Your task to perform on an android device: Search for Mexican restaurants on Maps Image 0: 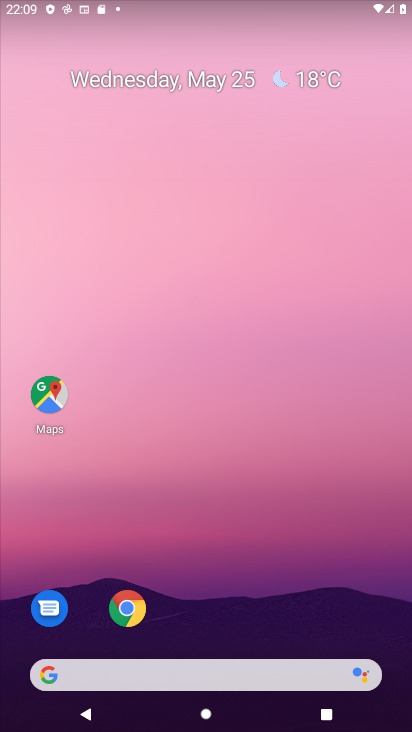
Step 0: click (54, 387)
Your task to perform on an android device: Search for Mexican restaurants on Maps Image 1: 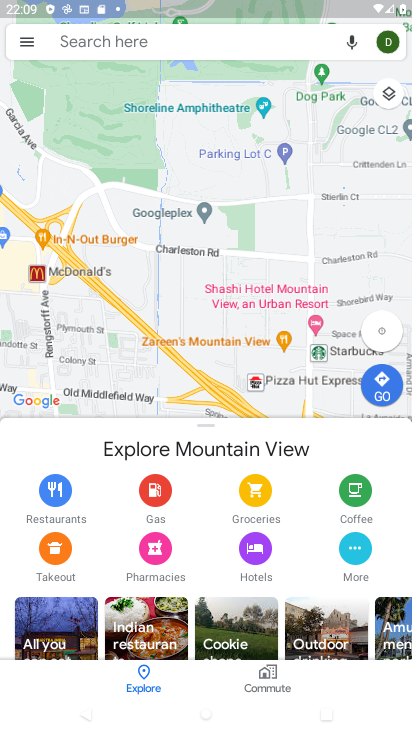
Step 1: click (132, 41)
Your task to perform on an android device: Search for Mexican restaurants on Maps Image 2: 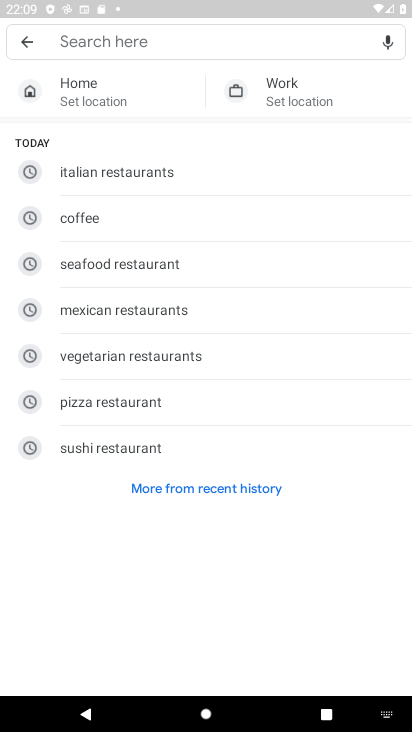
Step 2: click (156, 315)
Your task to perform on an android device: Search for Mexican restaurants on Maps Image 3: 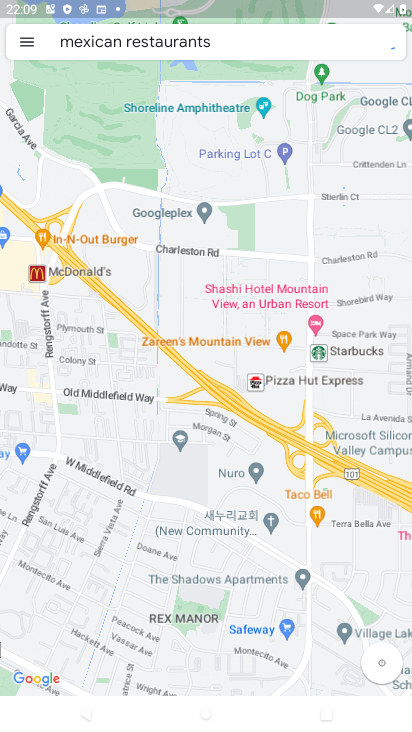
Step 3: task complete